Your task to perform on an android device: Go to Yahoo.com Image 0: 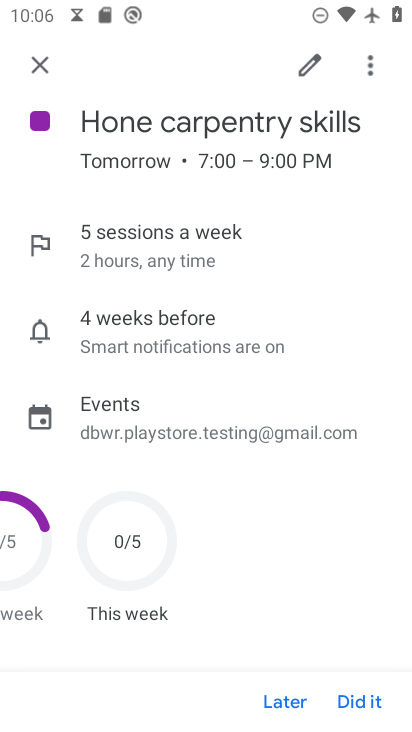
Step 0: press home button
Your task to perform on an android device: Go to Yahoo.com Image 1: 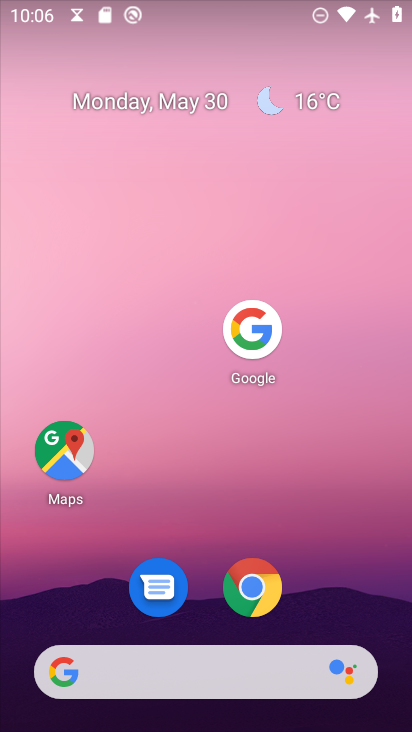
Step 1: click (259, 586)
Your task to perform on an android device: Go to Yahoo.com Image 2: 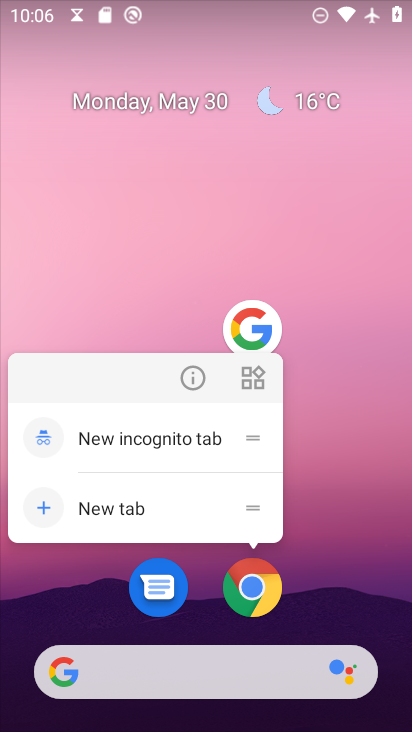
Step 2: click (250, 585)
Your task to perform on an android device: Go to Yahoo.com Image 3: 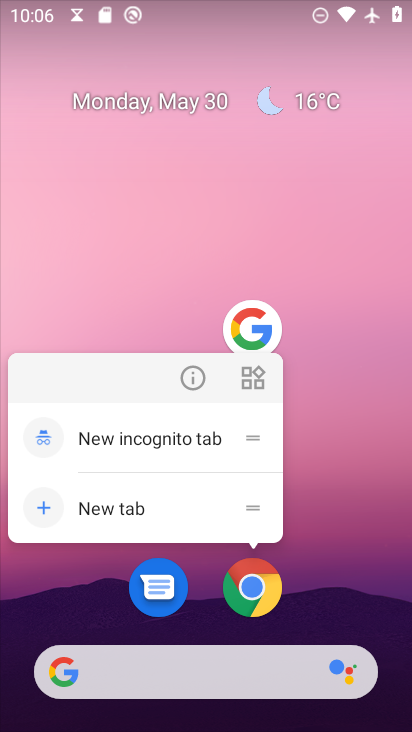
Step 3: click (256, 609)
Your task to perform on an android device: Go to Yahoo.com Image 4: 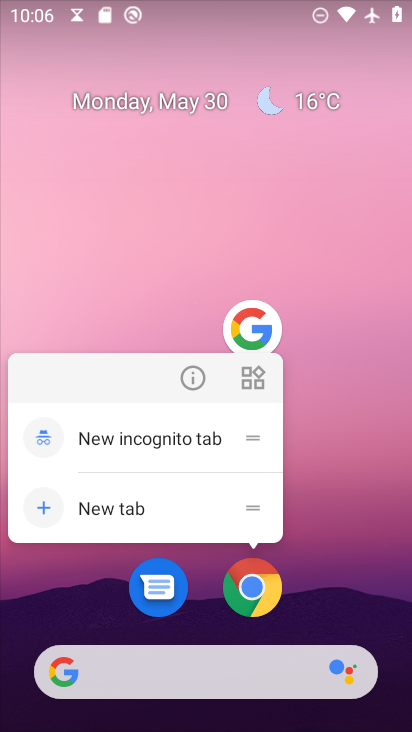
Step 4: click (240, 586)
Your task to perform on an android device: Go to Yahoo.com Image 5: 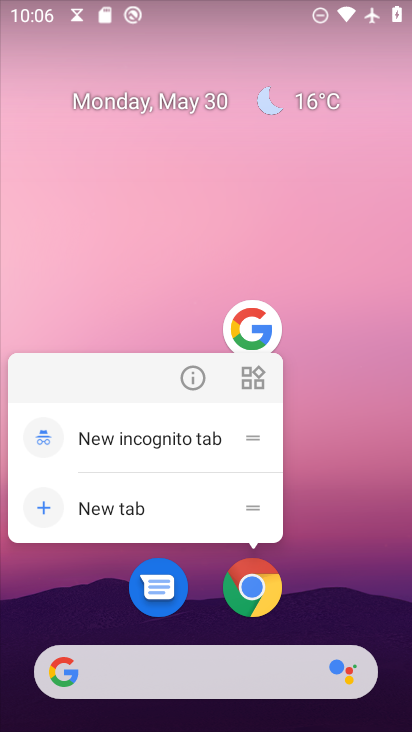
Step 5: click (255, 586)
Your task to perform on an android device: Go to Yahoo.com Image 6: 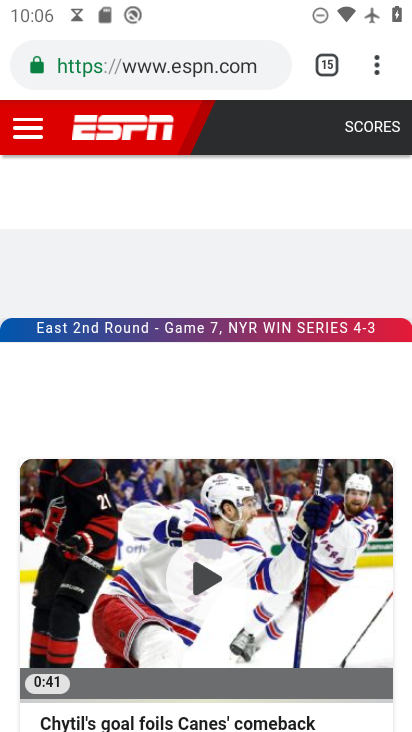
Step 6: drag from (379, 67) to (259, 146)
Your task to perform on an android device: Go to Yahoo.com Image 7: 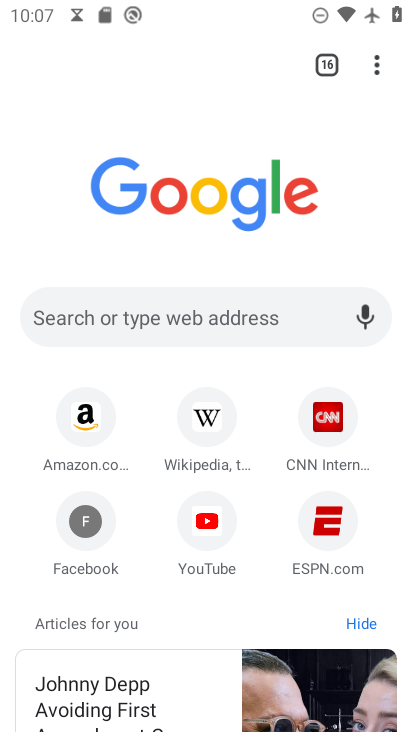
Step 7: click (182, 310)
Your task to perform on an android device: Go to Yahoo.com Image 8: 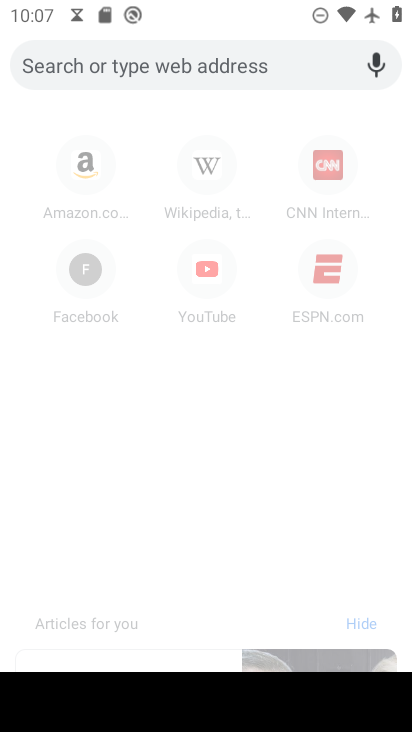
Step 8: type "yahoo.com"
Your task to perform on an android device: Go to Yahoo.com Image 9: 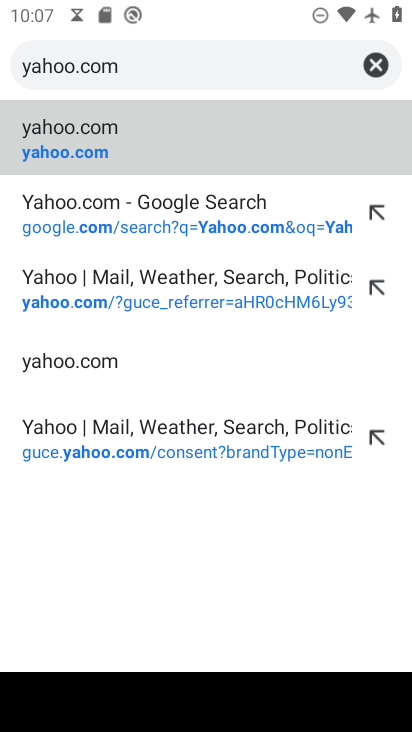
Step 9: click (114, 137)
Your task to perform on an android device: Go to Yahoo.com Image 10: 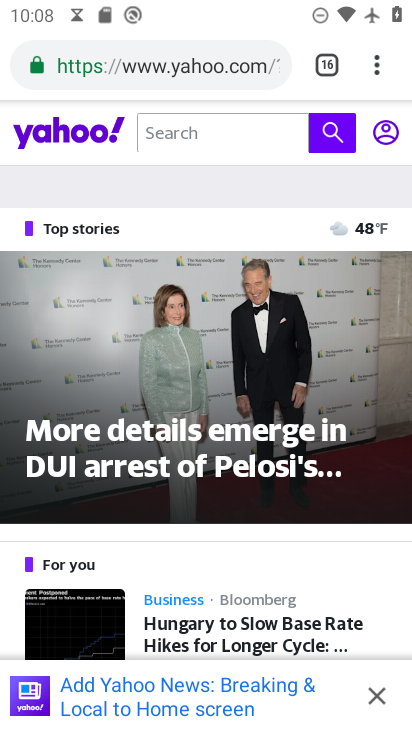
Step 10: task complete